Your task to perform on an android device: change the clock display to digital Image 0: 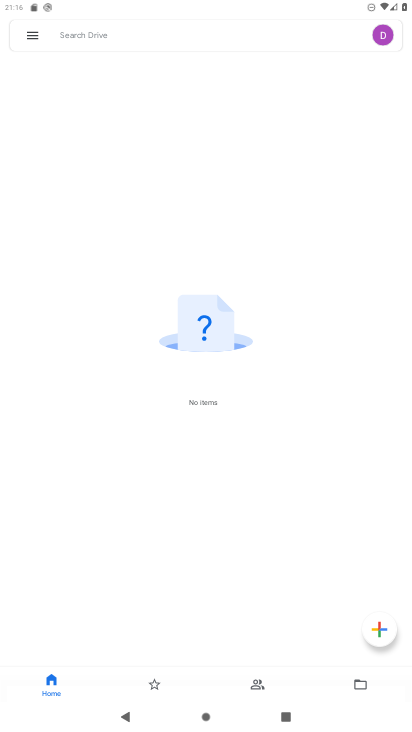
Step 0: press home button
Your task to perform on an android device: change the clock display to digital Image 1: 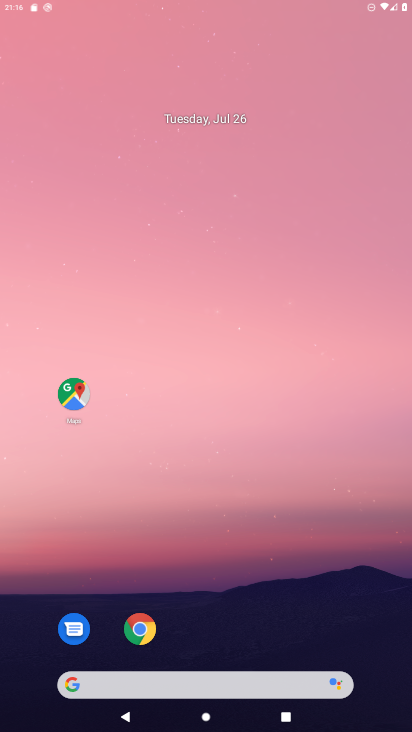
Step 1: drag from (268, 480) to (368, 14)
Your task to perform on an android device: change the clock display to digital Image 2: 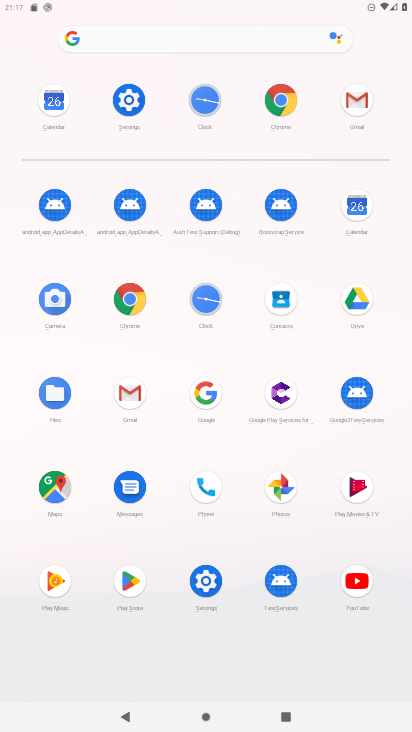
Step 2: click (200, 114)
Your task to perform on an android device: change the clock display to digital Image 3: 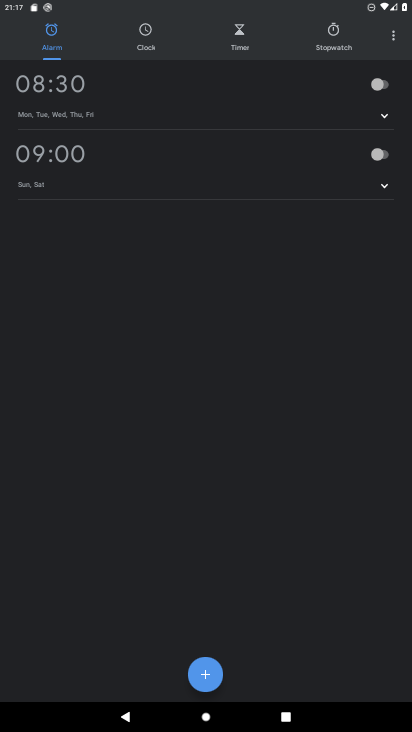
Step 3: click (387, 35)
Your task to perform on an android device: change the clock display to digital Image 4: 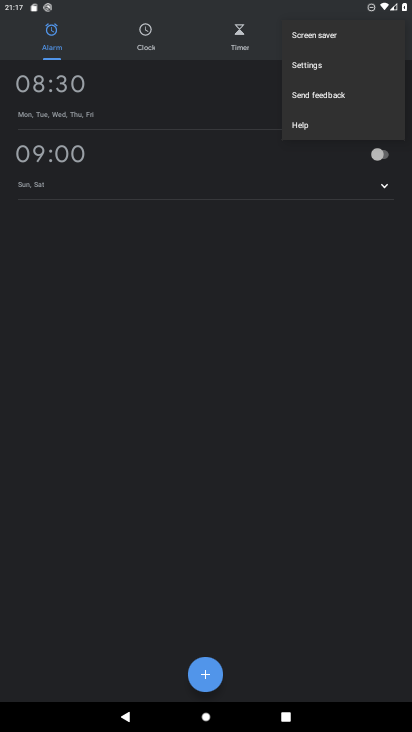
Step 4: click (313, 68)
Your task to perform on an android device: change the clock display to digital Image 5: 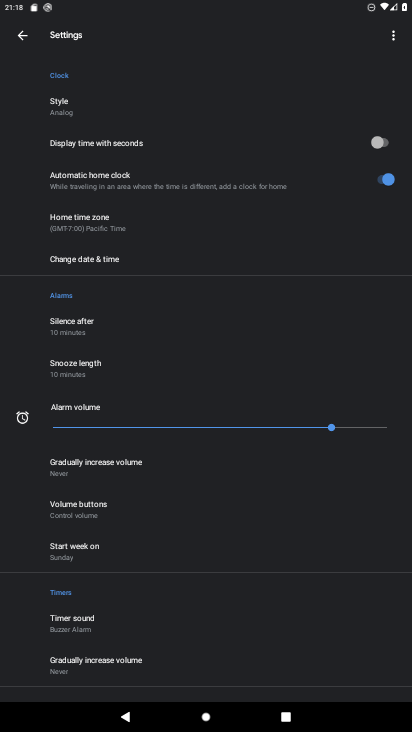
Step 5: click (78, 103)
Your task to perform on an android device: change the clock display to digital Image 6: 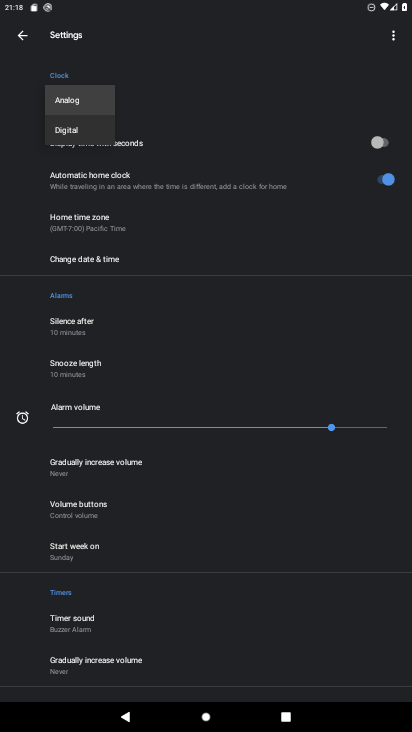
Step 6: click (67, 130)
Your task to perform on an android device: change the clock display to digital Image 7: 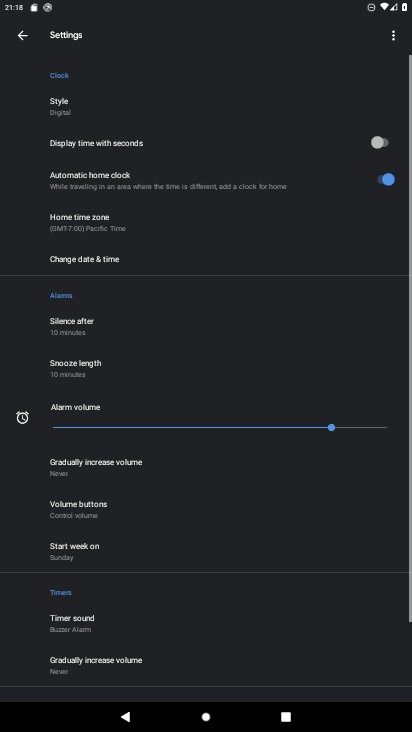
Step 7: task complete